Your task to perform on an android device: turn on priority inbox in the gmail app Image 0: 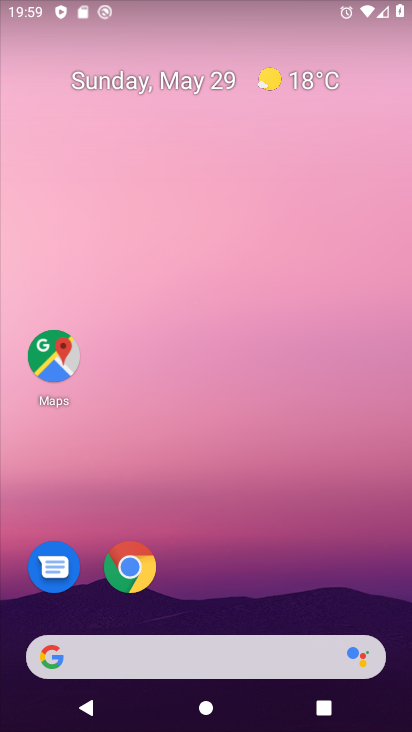
Step 0: drag from (394, 690) to (340, 133)
Your task to perform on an android device: turn on priority inbox in the gmail app Image 1: 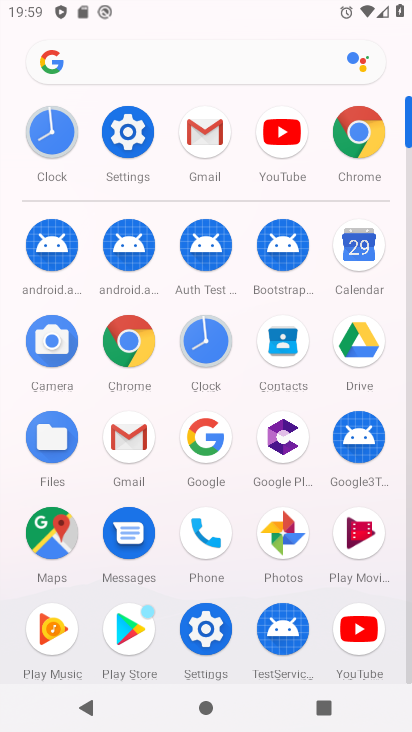
Step 1: click (124, 445)
Your task to perform on an android device: turn on priority inbox in the gmail app Image 2: 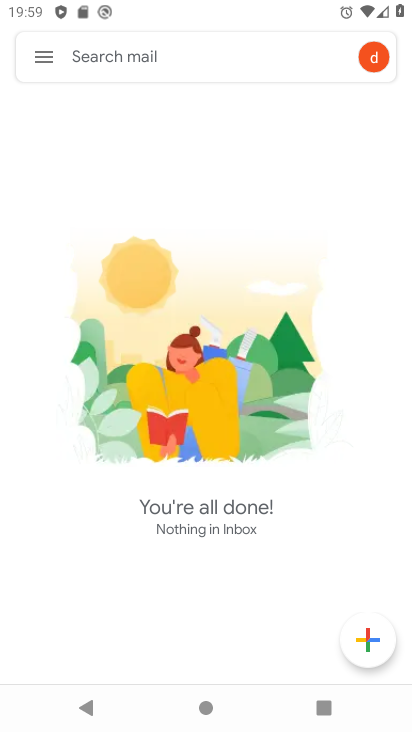
Step 2: click (39, 51)
Your task to perform on an android device: turn on priority inbox in the gmail app Image 3: 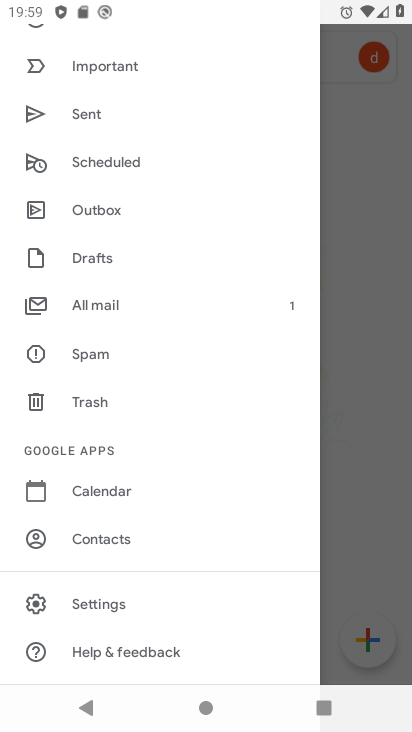
Step 3: click (108, 595)
Your task to perform on an android device: turn on priority inbox in the gmail app Image 4: 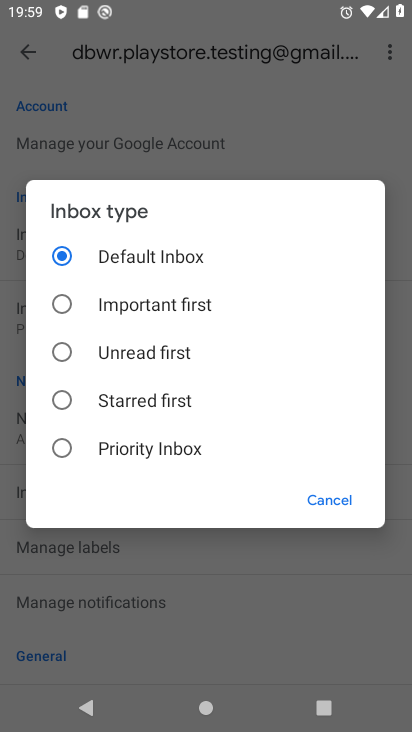
Step 4: click (60, 448)
Your task to perform on an android device: turn on priority inbox in the gmail app Image 5: 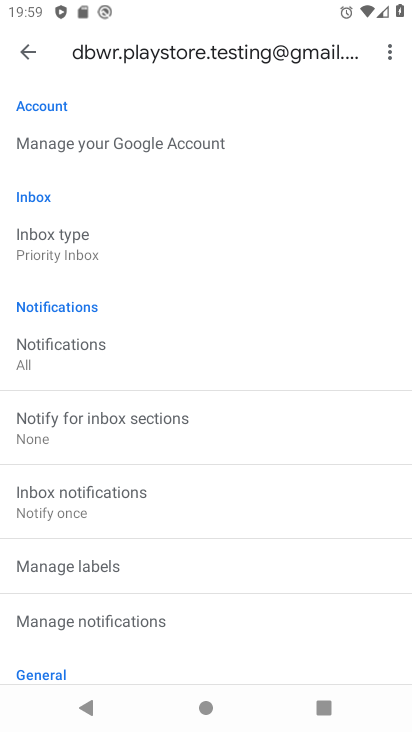
Step 5: task complete